Your task to perform on an android device: clear history in the chrome app Image 0: 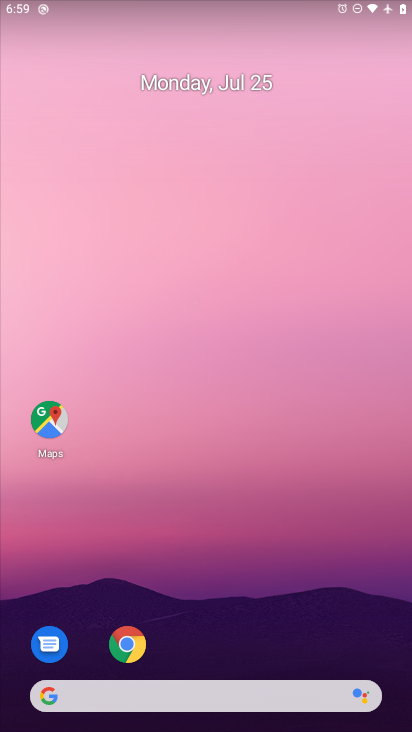
Step 0: press home button
Your task to perform on an android device: clear history in the chrome app Image 1: 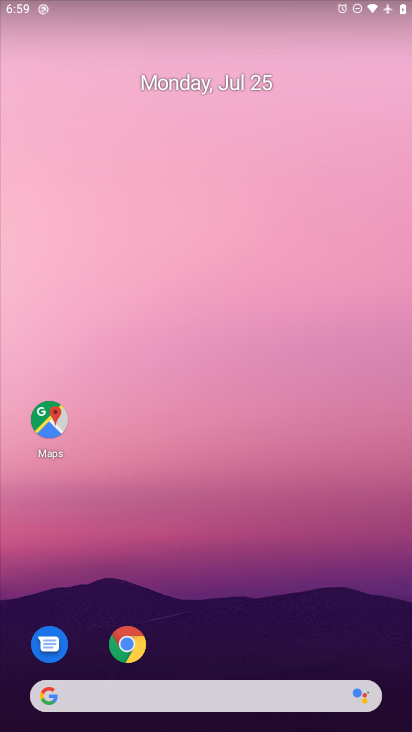
Step 1: drag from (241, 663) to (239, 241)
Your task to perform on an android device: clear history in the chrome app Image 2: 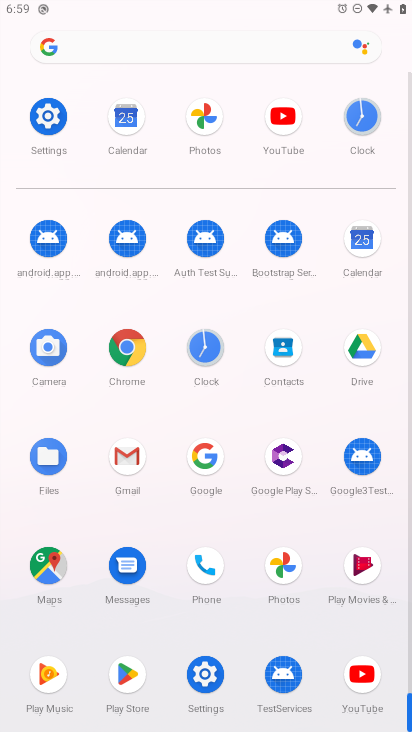
Step 2: click (122, 343)
Your task to perform on an android device: clear history in the chrome app Image 3: 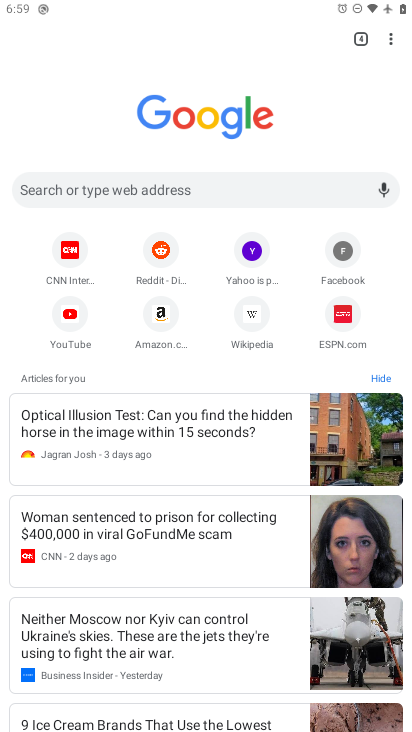
Step 3: drag from (392, 41) to (245, 218)
Your task to perform on an android device: clear history in the chrome app Image 4: 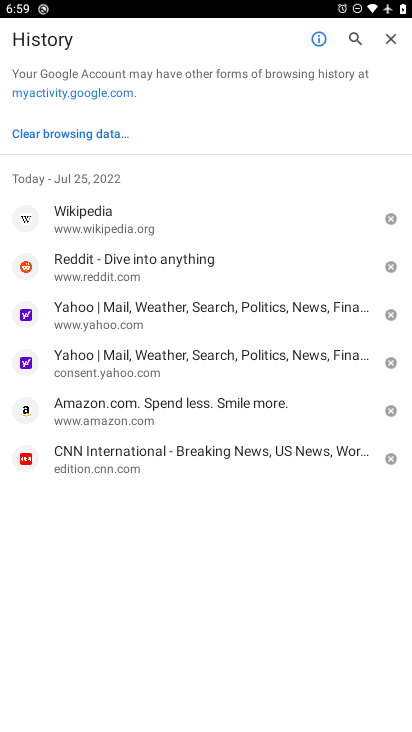
Step 4: click (61, 131)
Your task to perform on an android device: clear history in the chrome app Image 5: 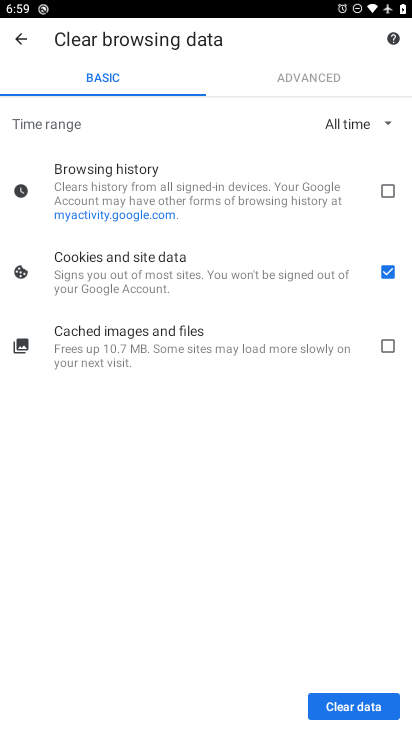
Step 5: click (391, 194)
Your task to perform on an android device: clear history in the chrome app Image 6: 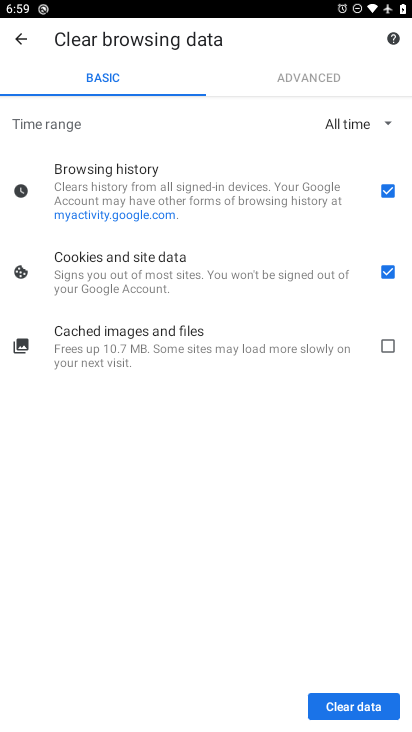
Step 6: click (386, 267)
Your task to perform on an android device: clear history in the chrome app Image 7: 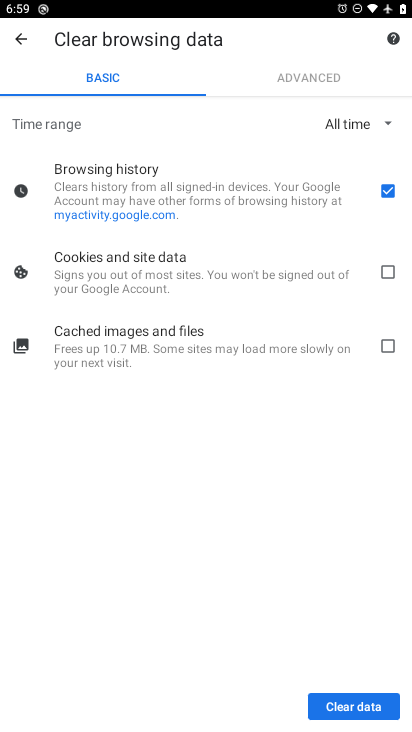
Step 7: click (347, 703)
Your task to perform on an android device: clear history in the chrome app Image 8: 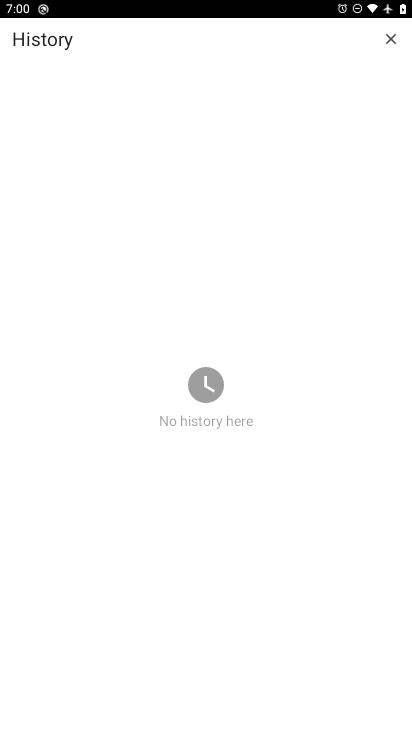
Step 8: task complete